Your task to perform on an android device: turn off wifi Image 0: 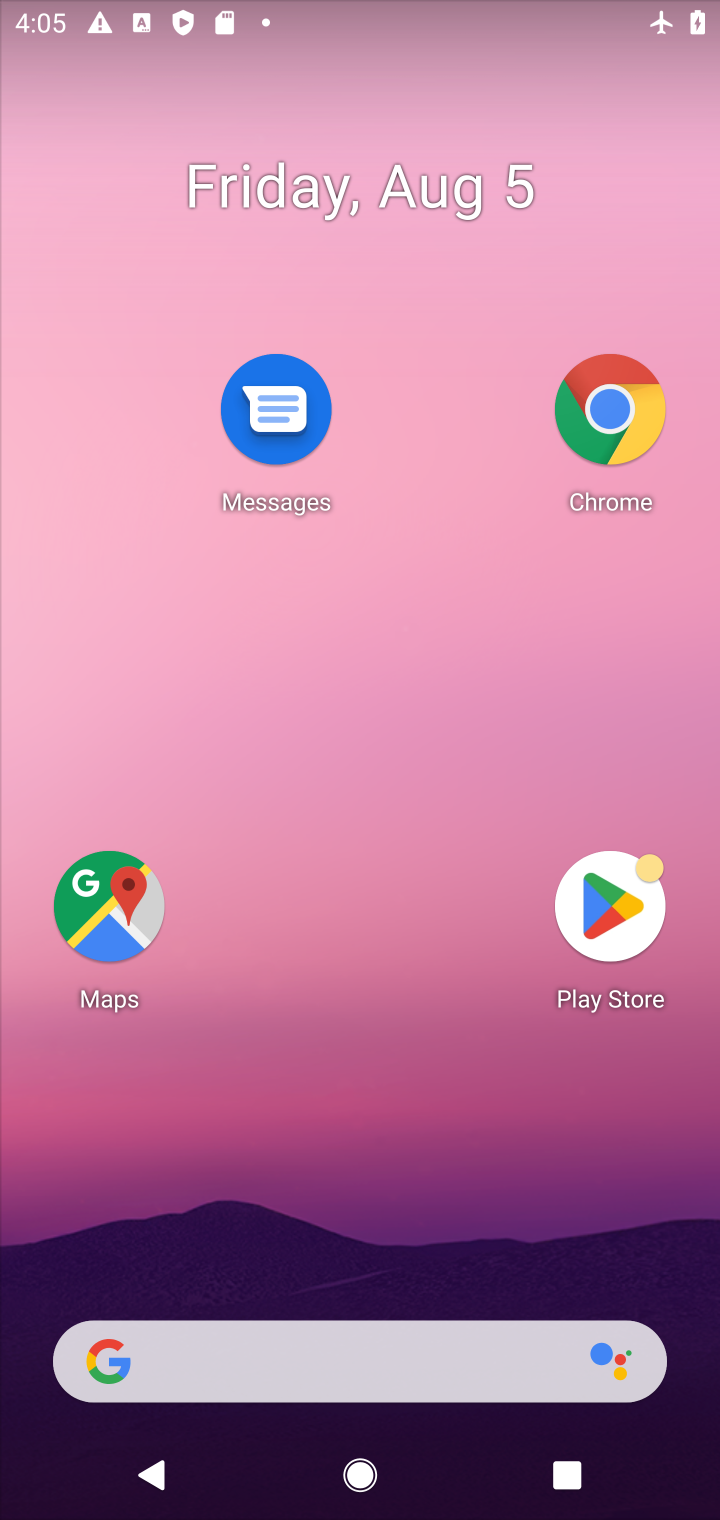
Step 0: drag from (340, 1148) to (381, 262)
Your task to perform on an android device: turn off wifi Image 1: 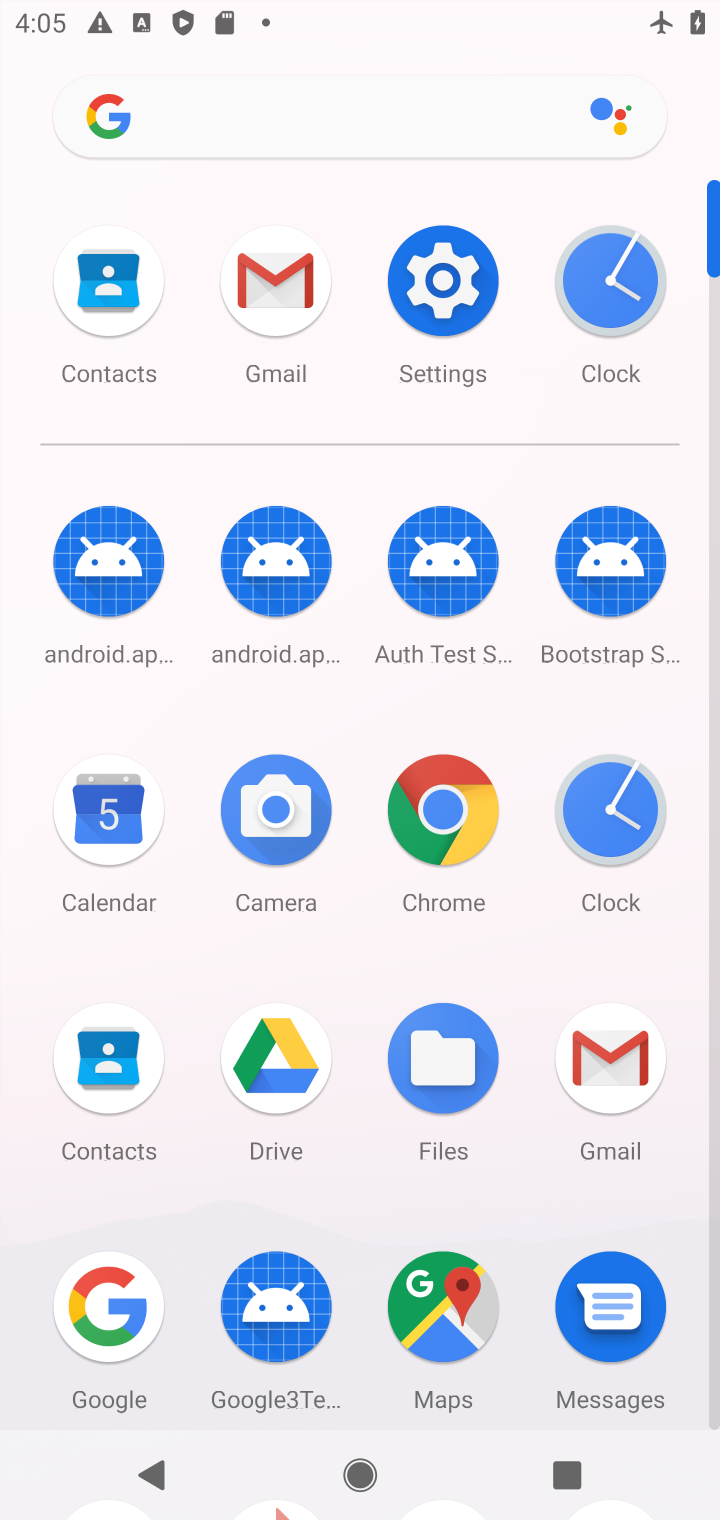
Step 1: click (438, 282)
Your task to perform on an android device: turn off wifi Image 2: 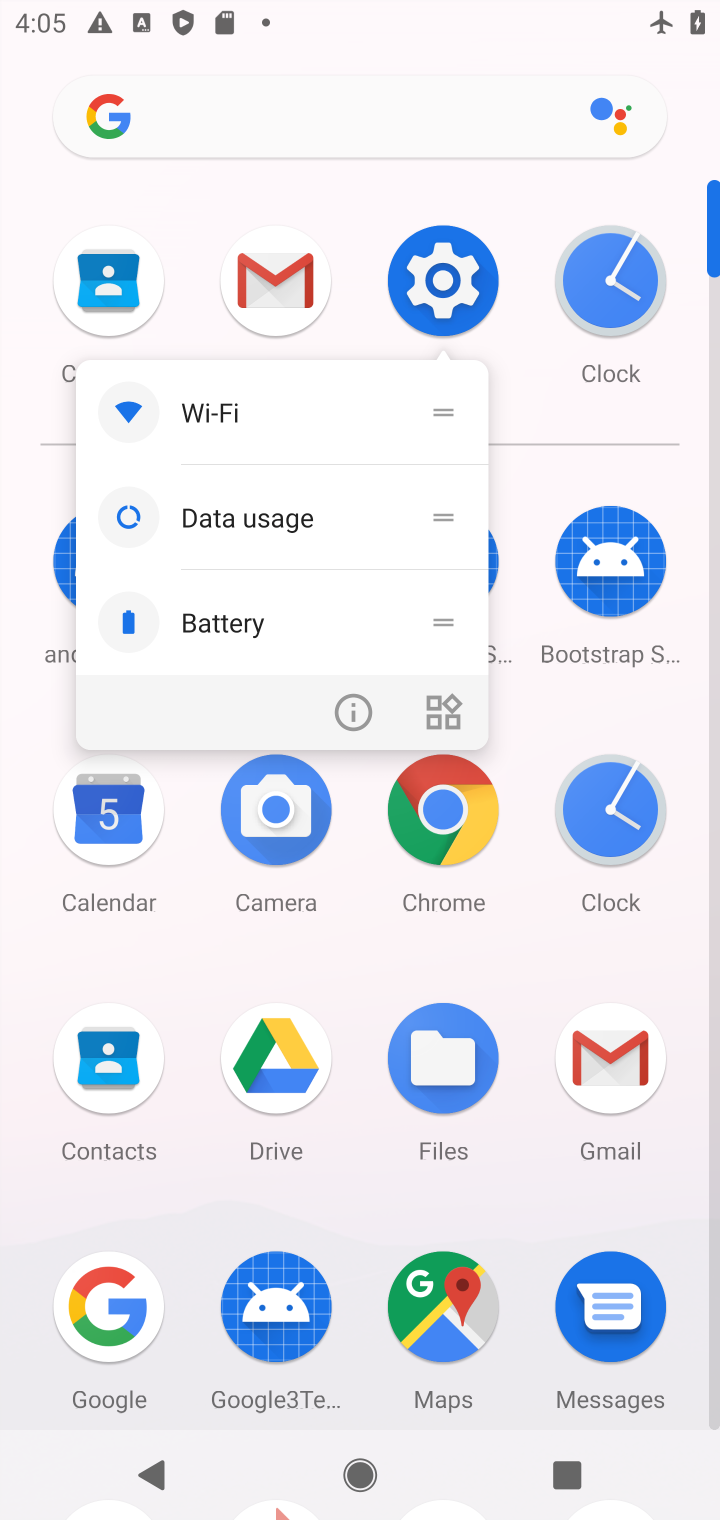
Step 2: click (438, 282)
Your task to perform on an android device: turn off wifi Image 3: 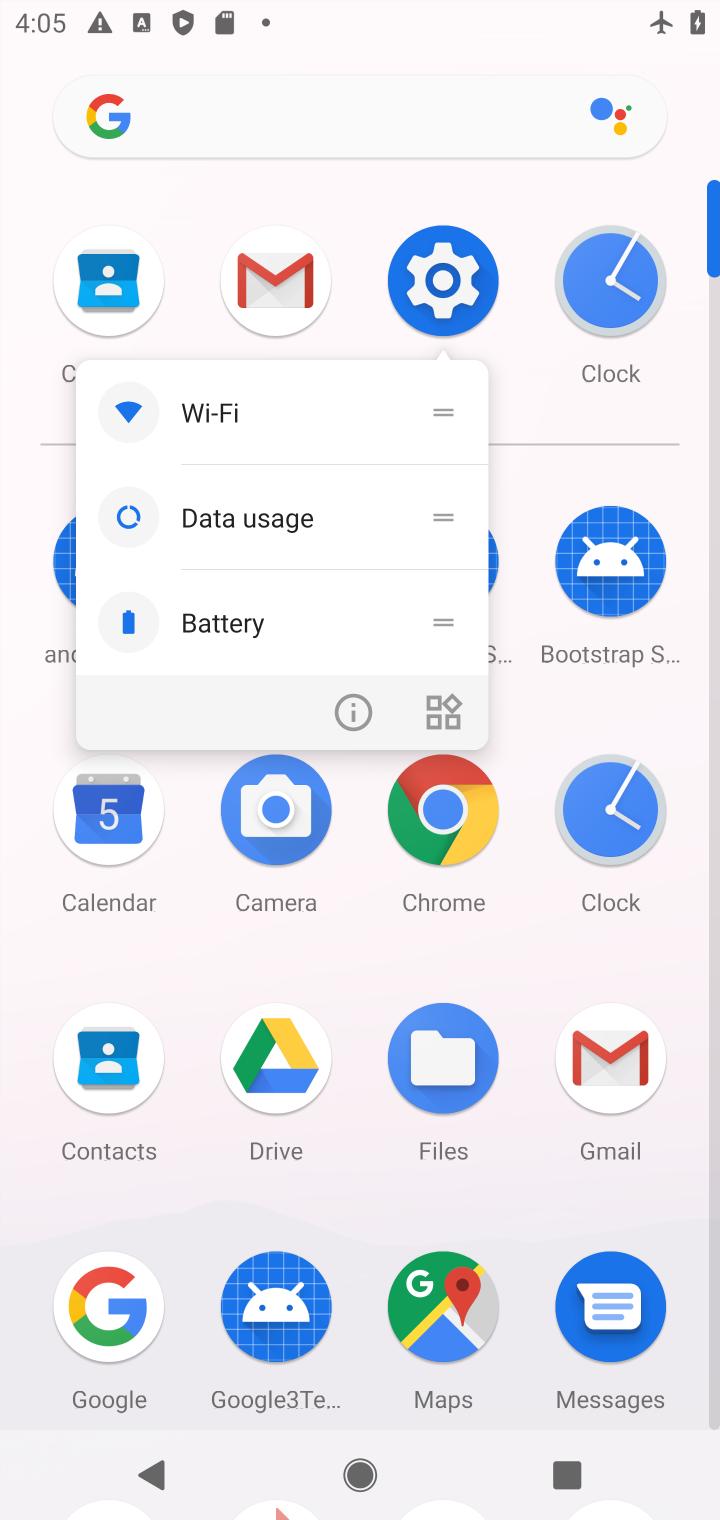
Step 3: click (438, 282)
Your task to perform on an android device: turn off wifi Image 4: 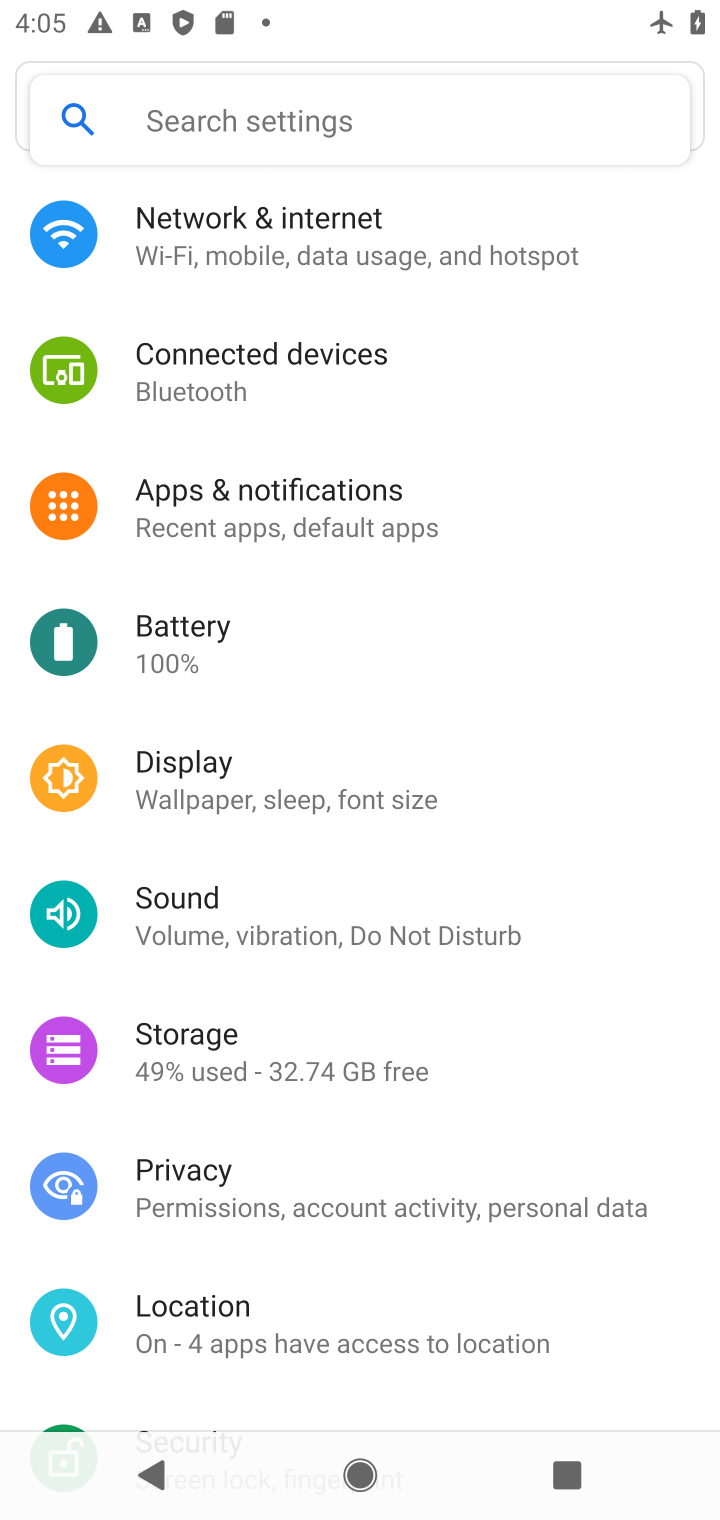
Step 4: click (190, 240)
Your task to perform on an android device: turn off wifi Image 5: 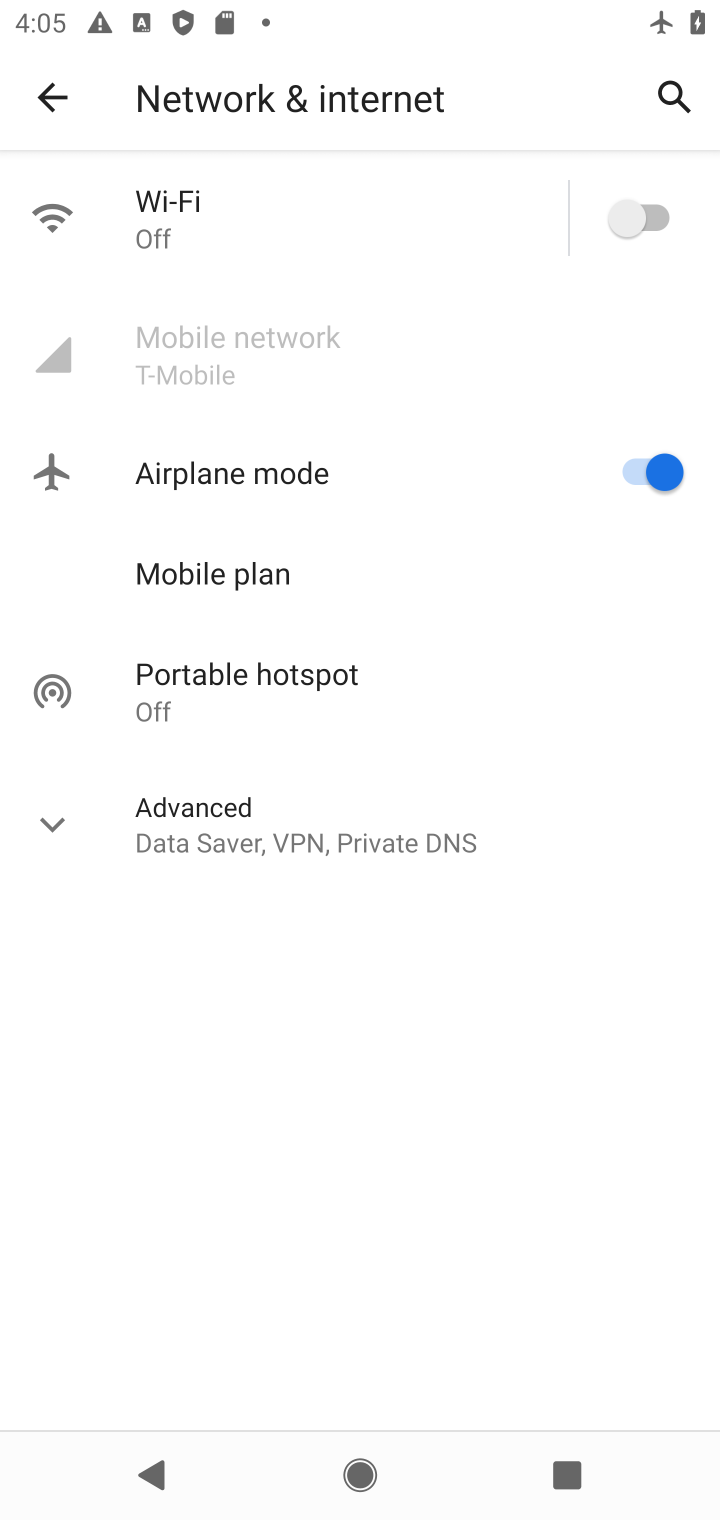
Step 5: task complete